Your task to perform on an android device: set the timer Image 0: 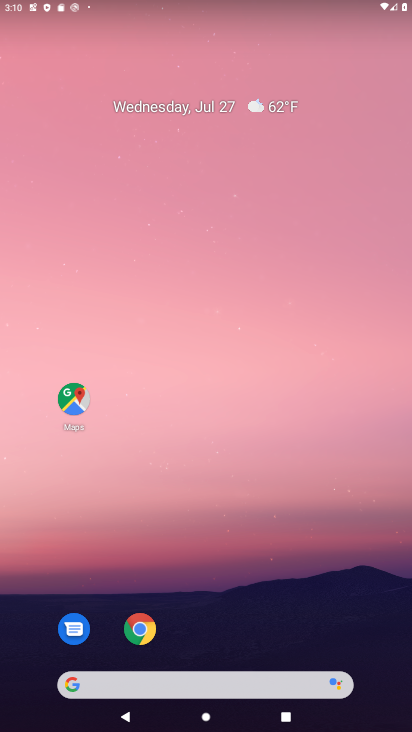
Step 0: drag from (213, 685) to (264, 31)
Your task to perform on an android device: set the timer Image 1: 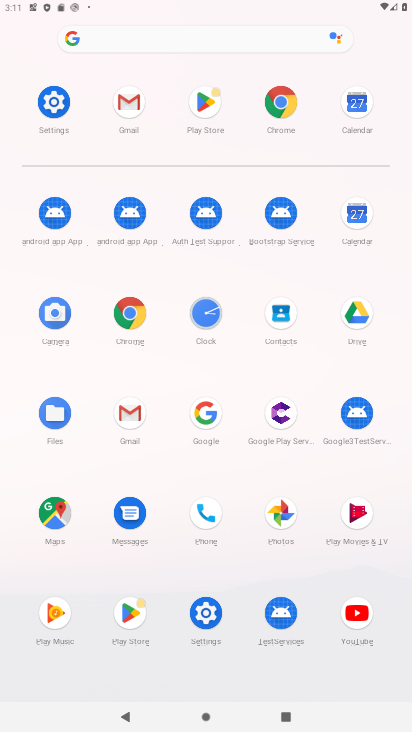
Step 1: click (205, 314)
Your task to perform on an android device: set the timer Image 2: 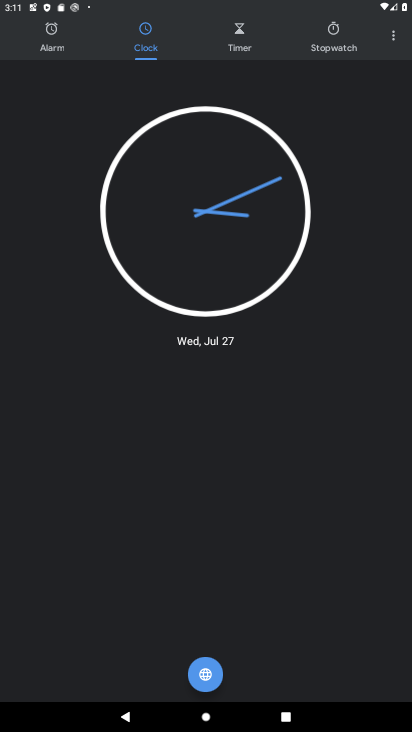
Step 2: click (238, 33)
Your task to perform on an android device: set the timer Image 3: 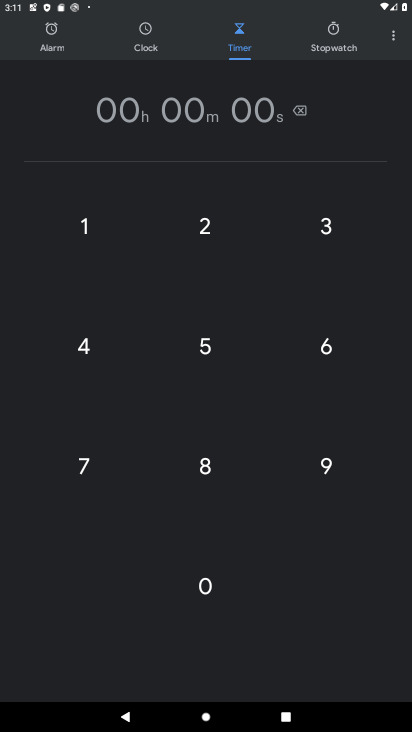
Step 3: type "148"
Your task to perform on an android device: set the timer Image 4: 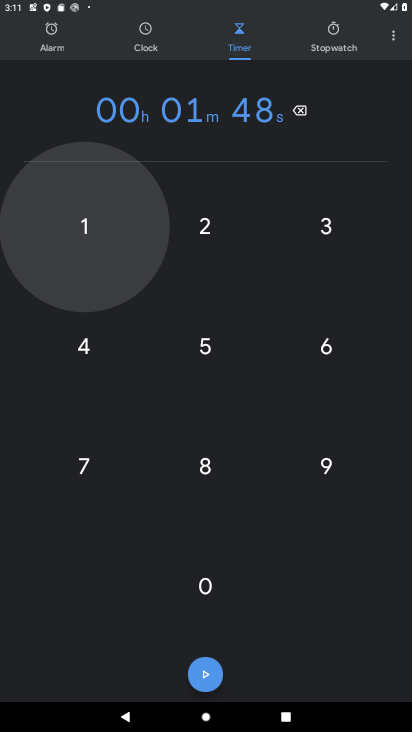
Step 4: click (204, 673)
Your task to perform on an android device: set the timer Image 5: 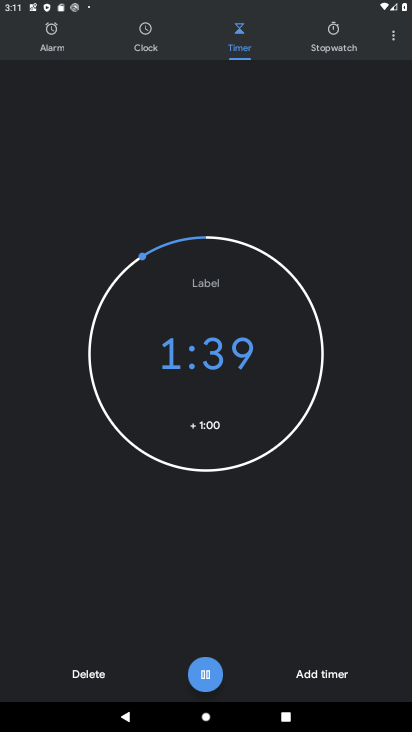
Step 5: click (204, 673)
Your task to perform on an android device: set the timer Image 6: 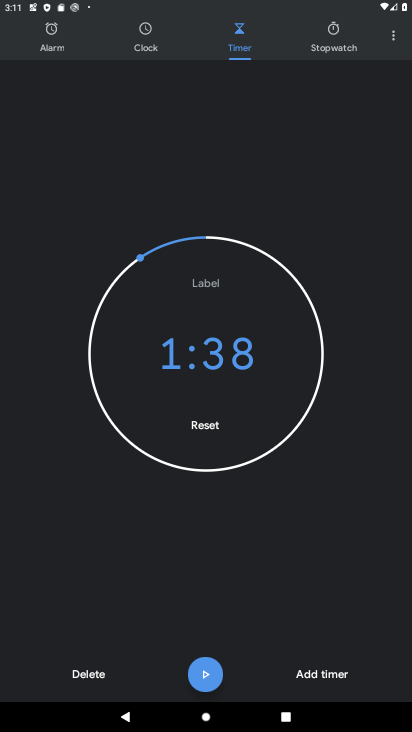
Step 6: task complete